Your task to perform on an android device: Go to Google maps Image 0: 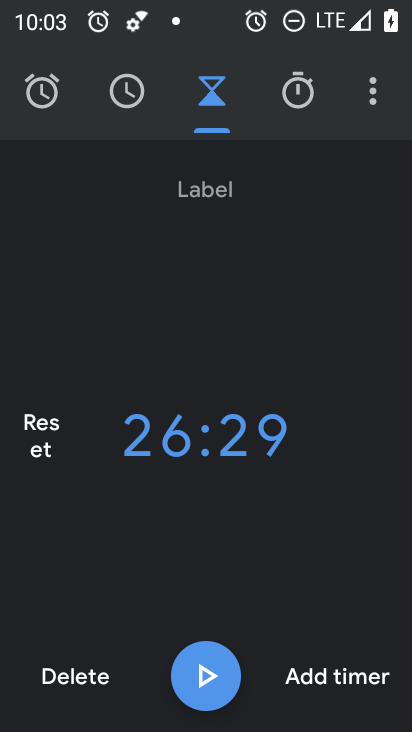
Step 0: press back button
Your task to perform on an android device: Go to Google maps Image 1: 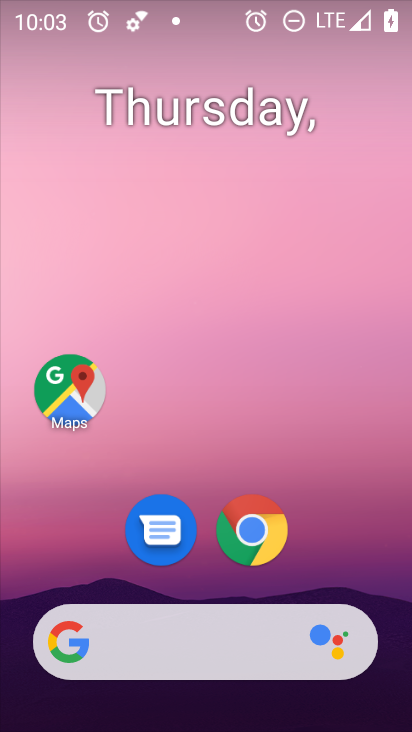
Step 1: drag from (349, 553) to (281, 50)
Your task to perform on an android device: Go to Google maps Image 2: 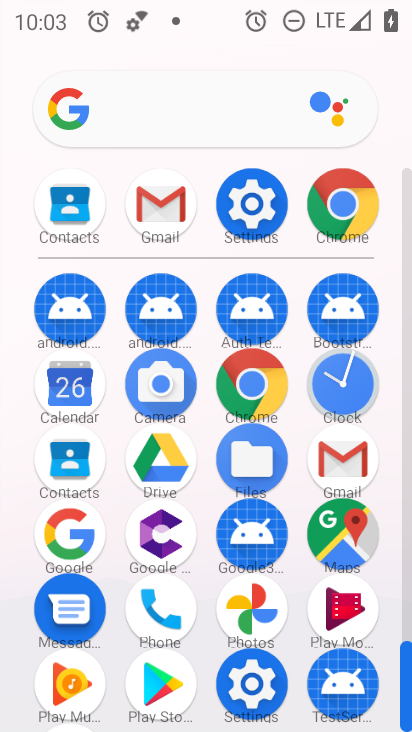
Step 2: drag from (10, 525) to (8, 270)
Your task to perform on an android device: Go to Google maps Image 3: 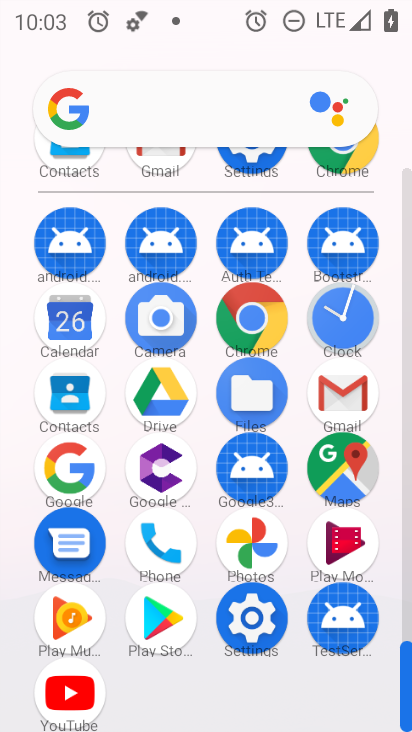
Step 3: click (347, 465)
Your task to perform on an android device: Go to Google maps Image 4: 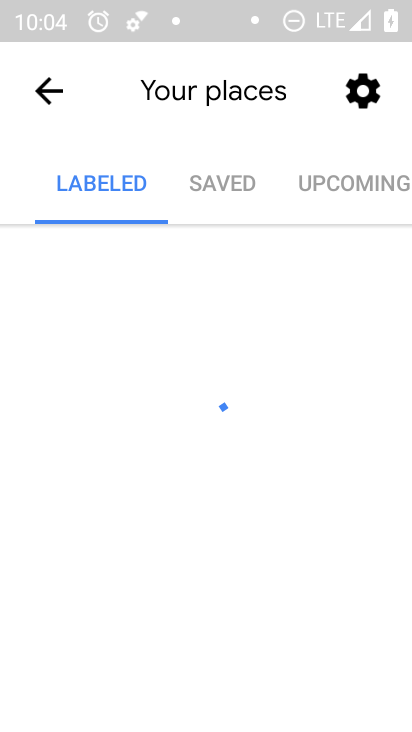
Step 4: click (52, 91)
Your task to perform on an android device: Go to Google maps Image 5: 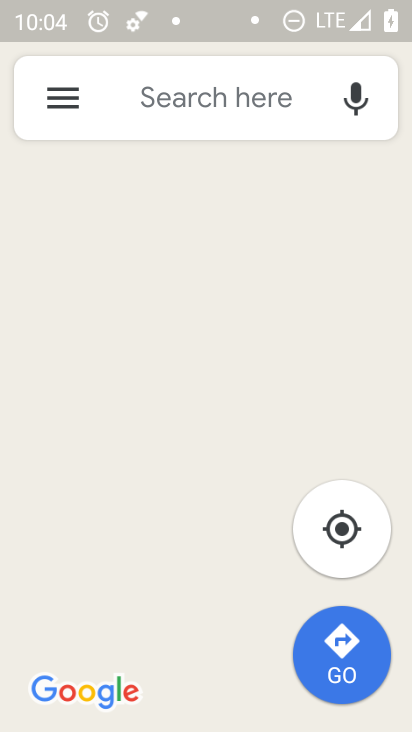
Step 5: click (52, 91)
Your task to perform on an android device: Go to Google maps Image 6: 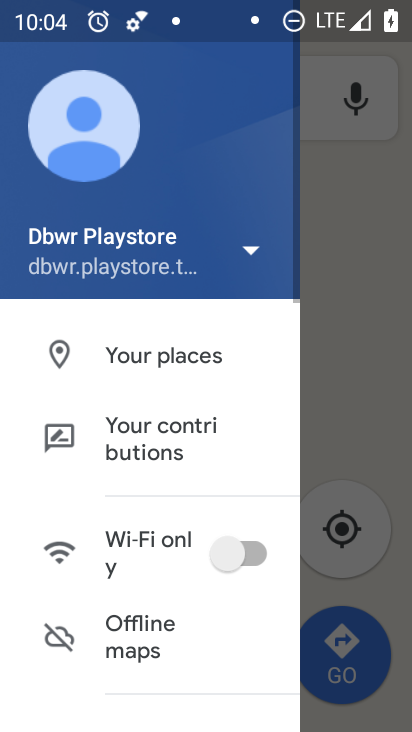
Step 6: click (320, 256)
Your task to perform on an android device: Go to Google maps Image 7: 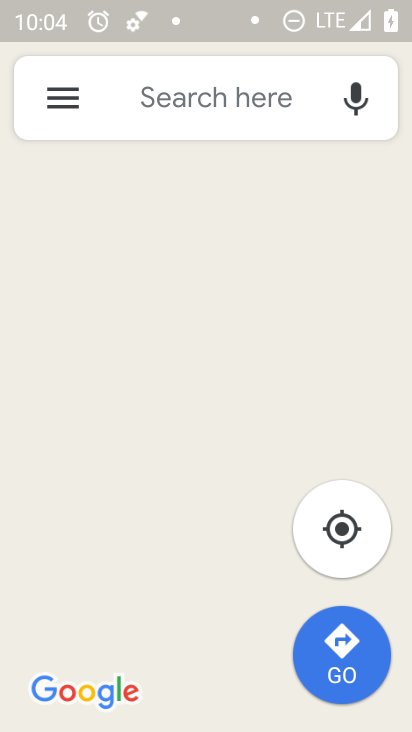
Step 7: task complete